Your task to perform on an android device: open app "Viber Messenger" Image 0: 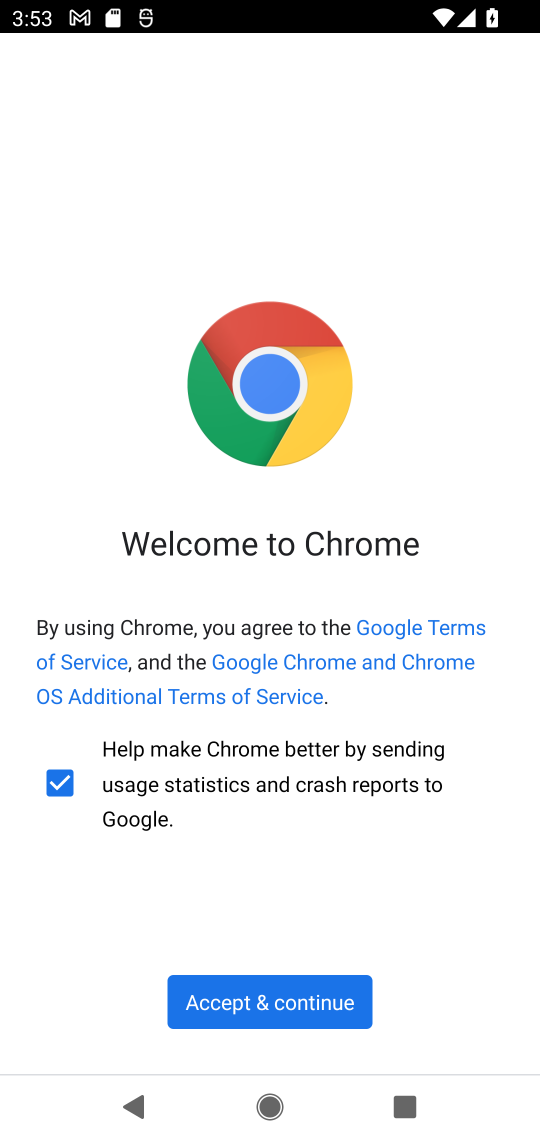
Step 0: press home button
Your task to perform on an android device: open app "Viber Messenger" Image 1: 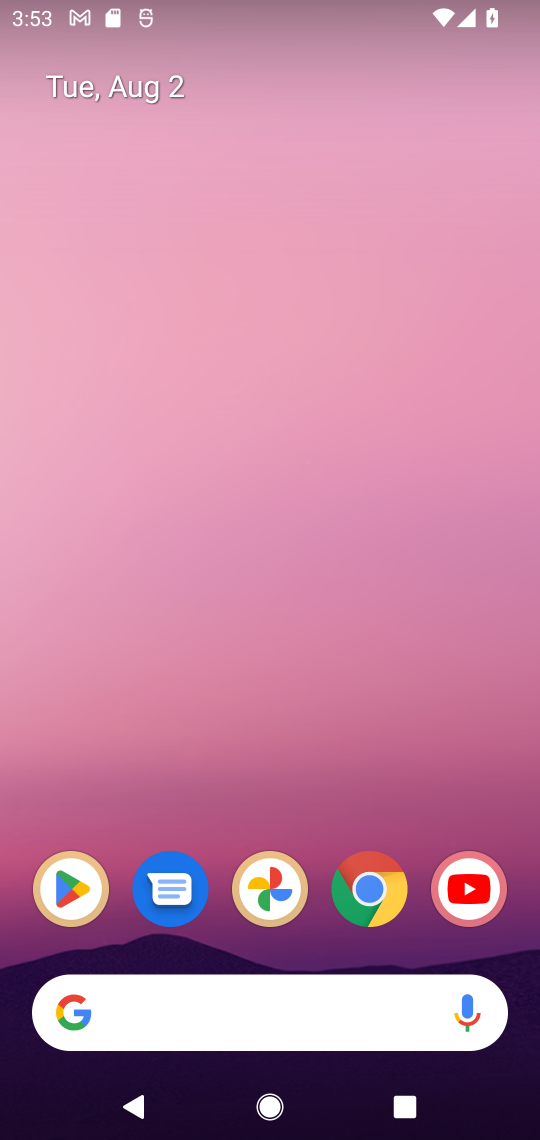
Step 1: drag from (409, 733) to (413, 103)
Your task to perform on an android device: open app "Viber Messenger" Image 2: 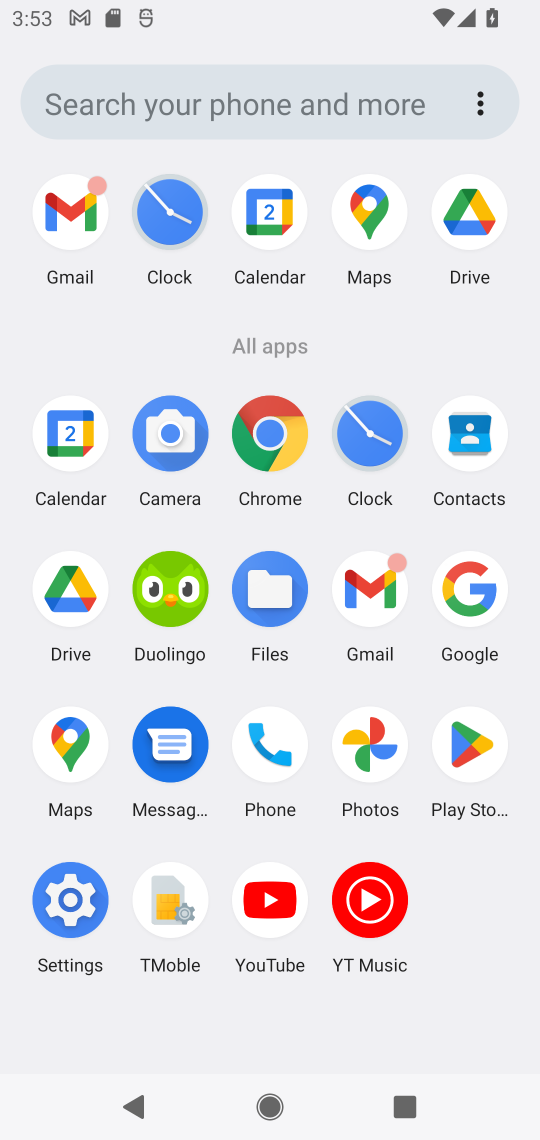
Step 2: click (474, 749)
Your task to perform on an android device: open app "Viber Messenger" Image 3: 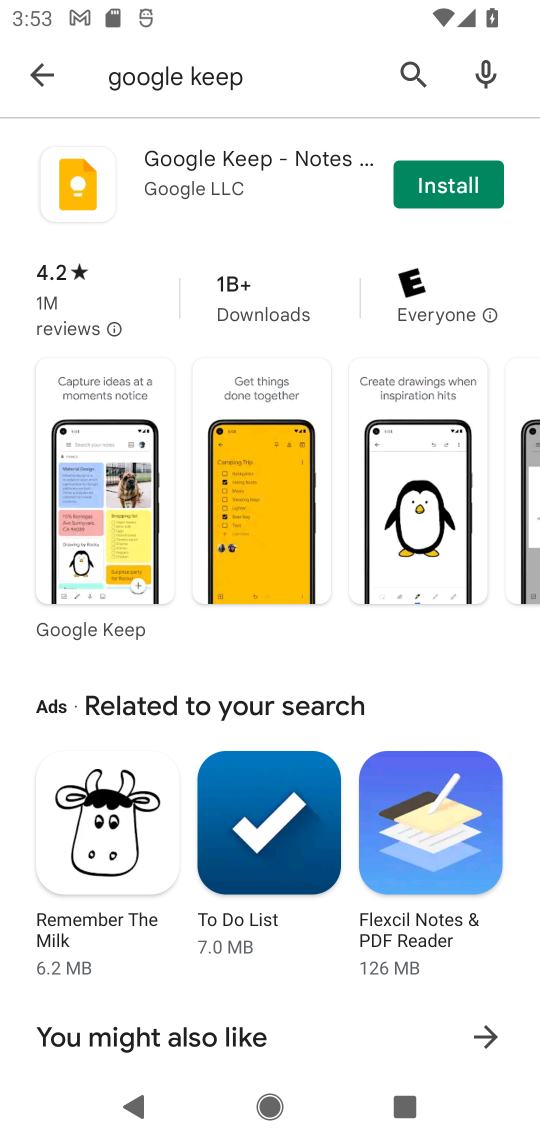
Step 3: click (406, 64)
Your task to perform on an android device: open app "Viber Messenger" Image 4: 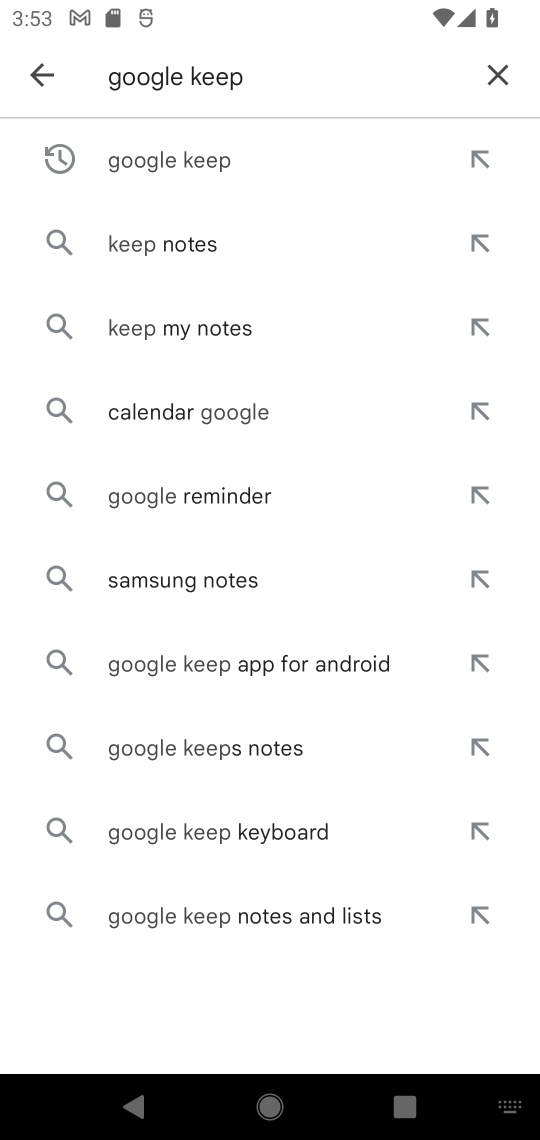
Step 4: click (491, 68)
Your task to perform on an android device: open app "Viber Messenger" Image 5: 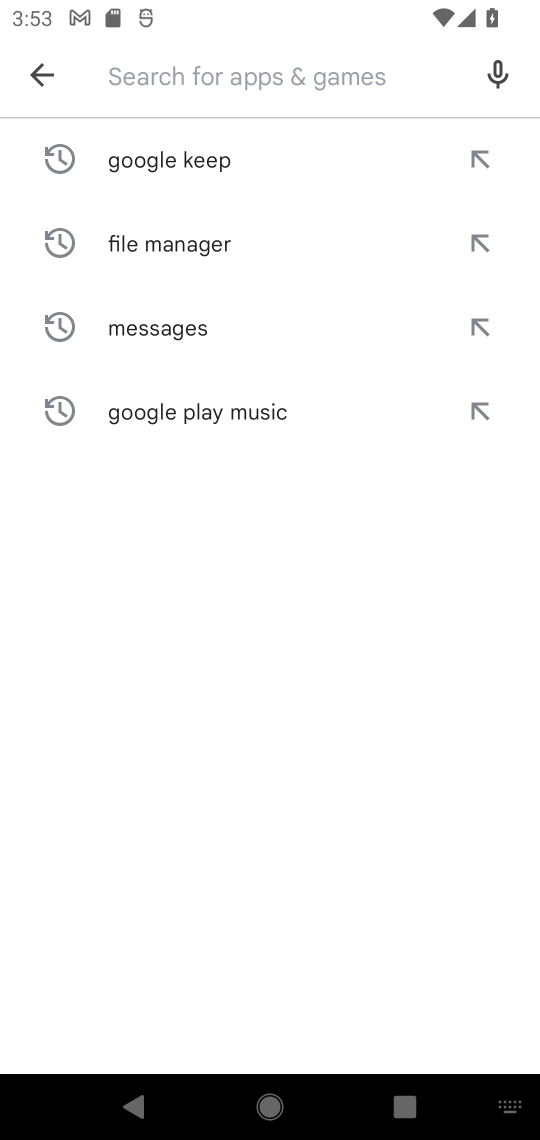
Step 5: type "viber messenger"
Your task to perform on an android device: open app "Viber Messenger" Image 6: 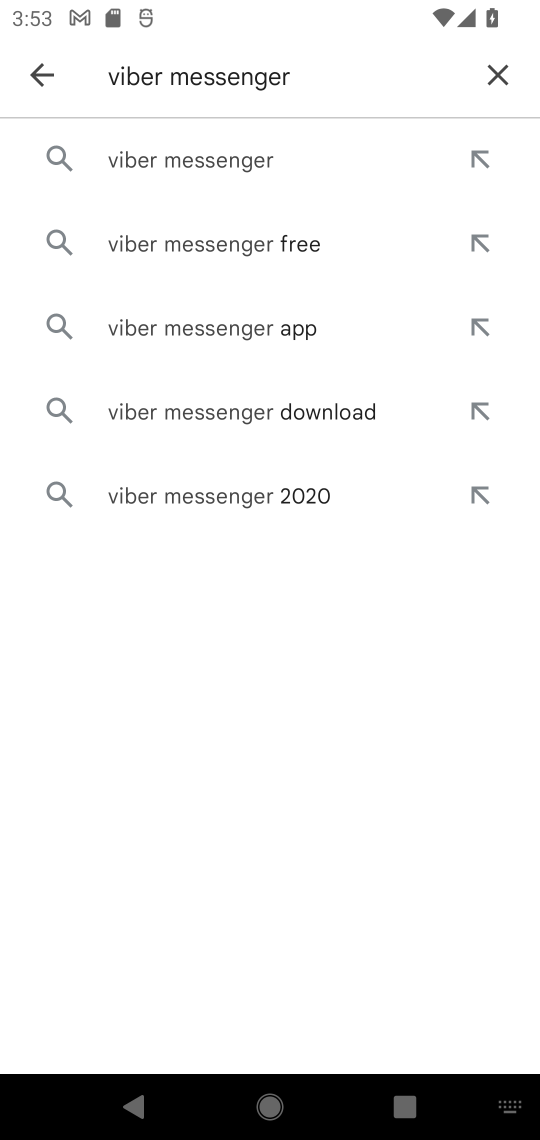
Step 6: click (281, 165)
Your task to perform on an android device: open app "Viber Messenger" Image 7: 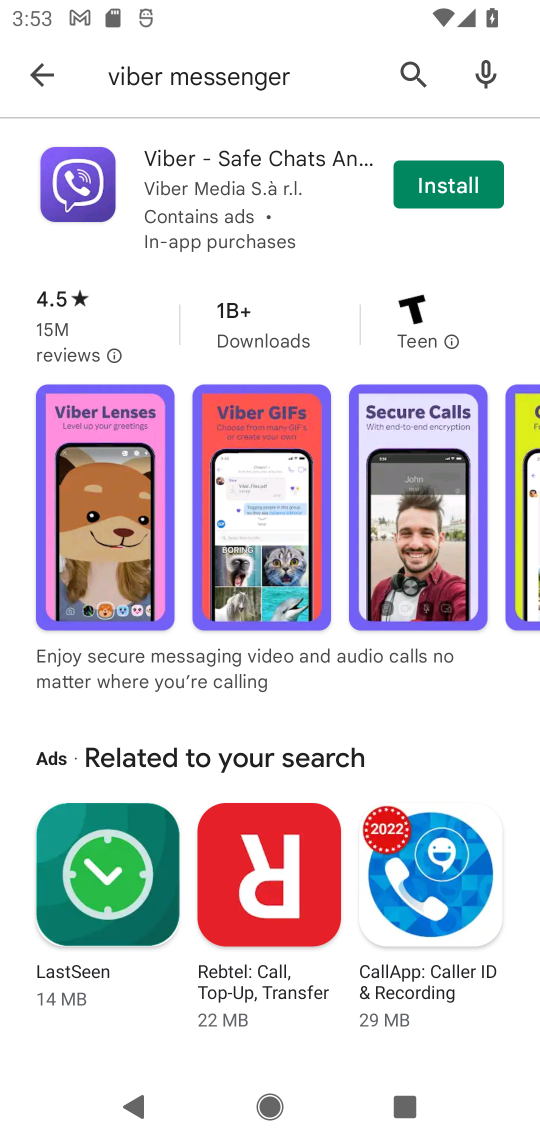
Step 7: task complete